Your task to perform on an android device: toggle location history Image 0: 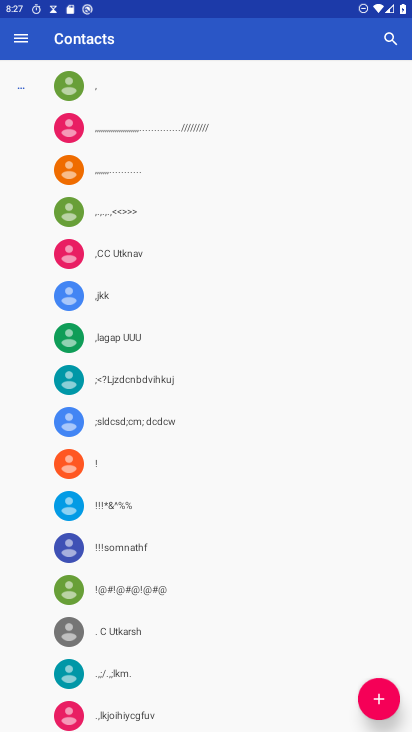
Step 0: press home button
Your task to perform on an android device: toggle location history Image 1: 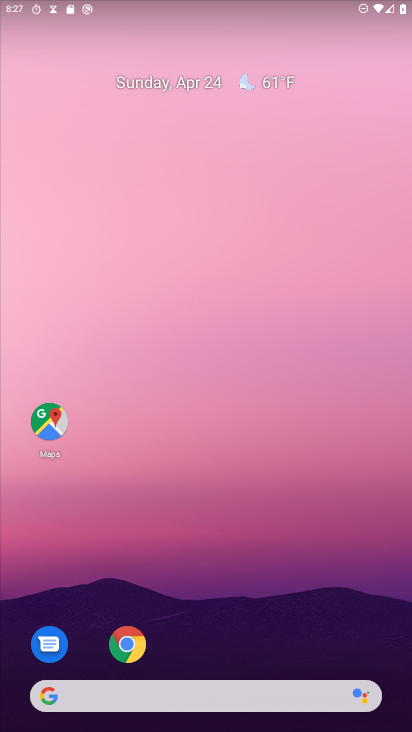
Step 1: drag from (232, 689) to (268, 101)
Your task to perform on an android device: toggle location history Image 2: 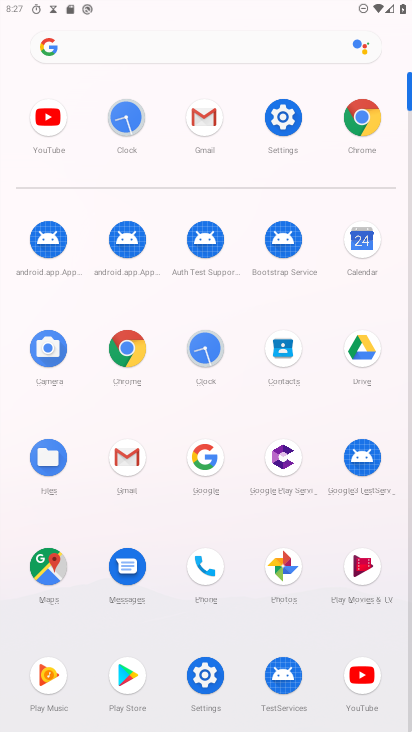
Step 2: click (204, 671)
Your task to perform on an android device: toggle location history Image 3: 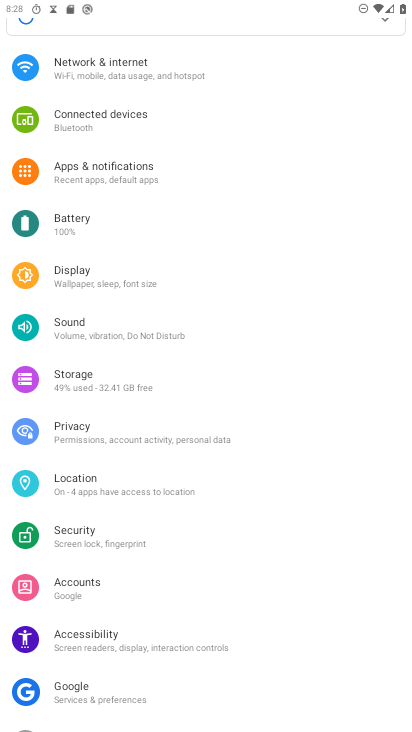
Step 3: click (108, 490)
Your task to perform on an android device: toggle location history Image 4: 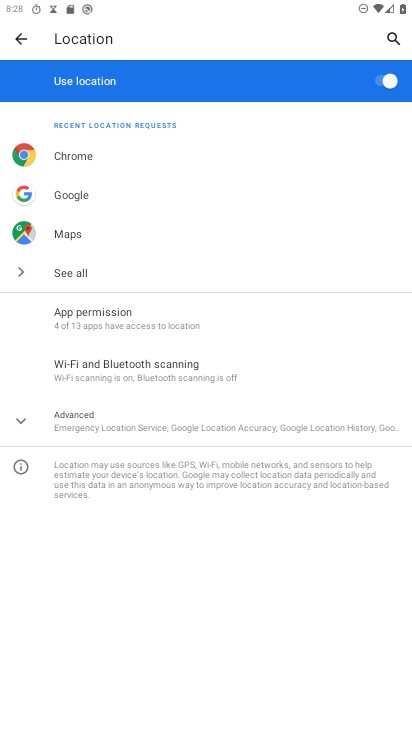
Step 4: click (106, 432)
Your task to perform on an android device: toggle location history Image 5: 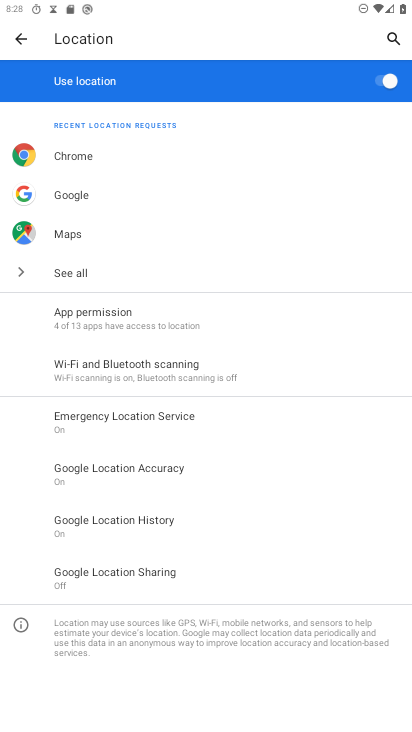
Step 5: click (161, 518)
Your task to perform on an android device: toggle location history Image 6: 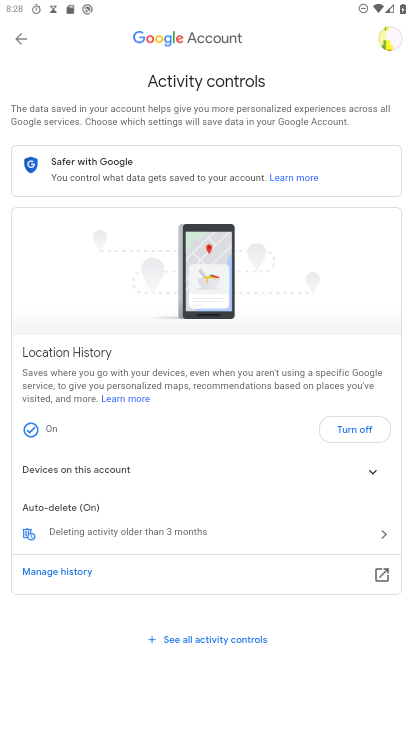
Step 6: click (363, 435)
Your task to perform on an android device: toggle location history Image 7: 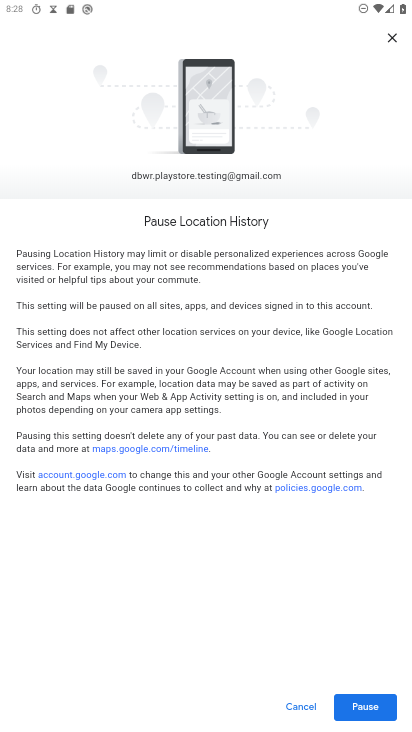
Step 7: click (384, 701)
Your task to perform on an android device: toggle location history Image 8: 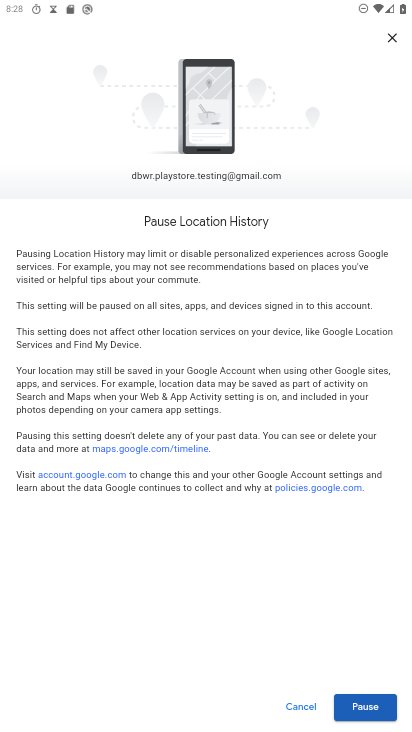
Step 8: click (367, 717)
Your task to perform on an android device: toggle location history Image 9: 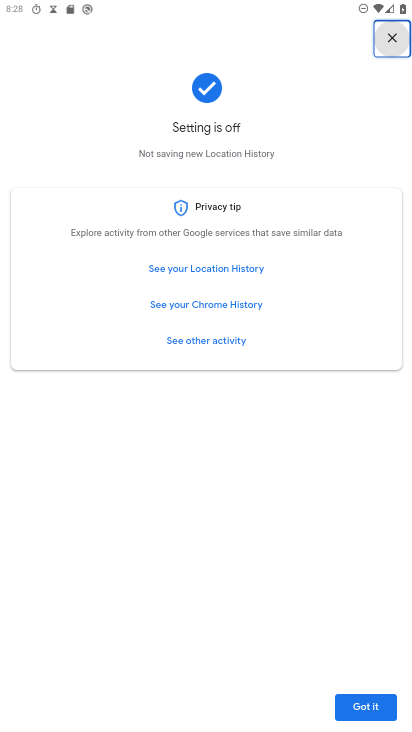
Step 9: click (368, 689)
Your task to perform on an android device: toggle location history Image 10: 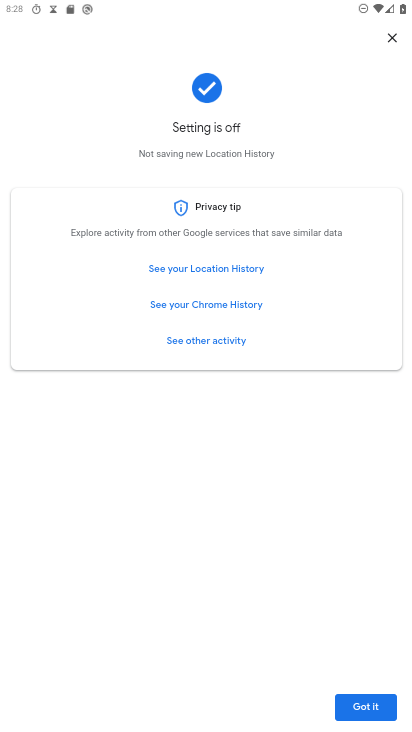
Step 10: task complete